Your task to perform on an android device: check android version Image 0: 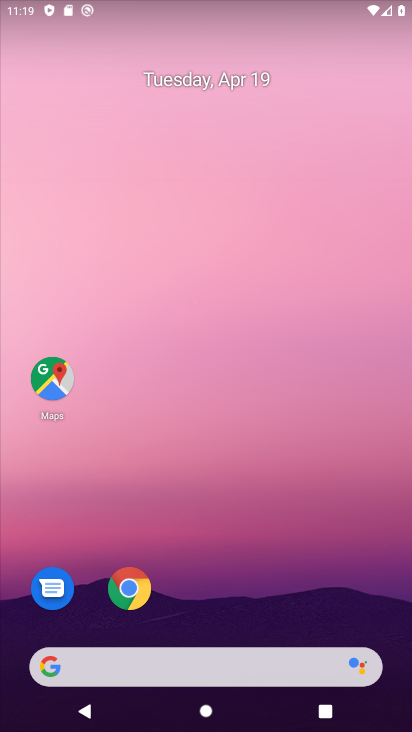
Step 0: drag from (221, 93) to (256, 107)
Your task to perform on an android device: check android version Image 1: 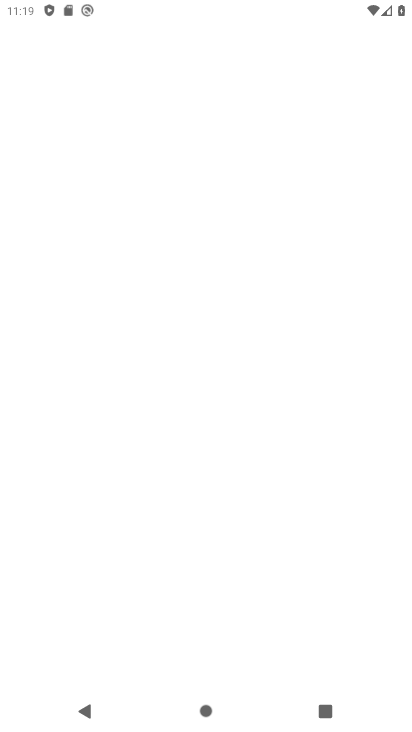
Step 1: press home button
Your task to perform on an android device: check android version Image 2: 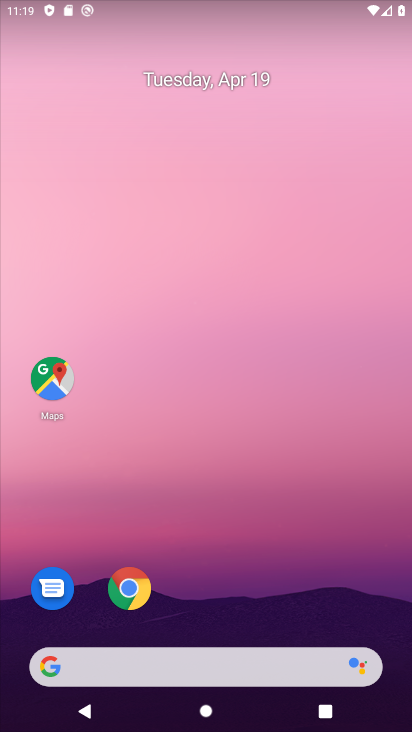
Step 2: drag from (211, 599) to (211, 58)
Your task to perform on an android device: check android version Image 3: 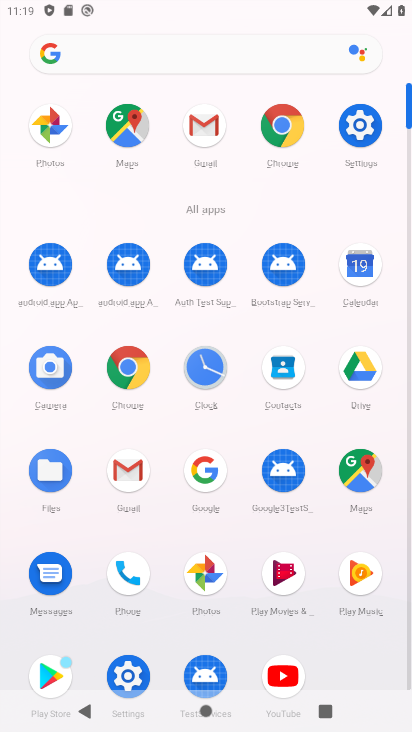
Step 3: click (363, 116)
Your task to perform on an android device: check android version Image 4: 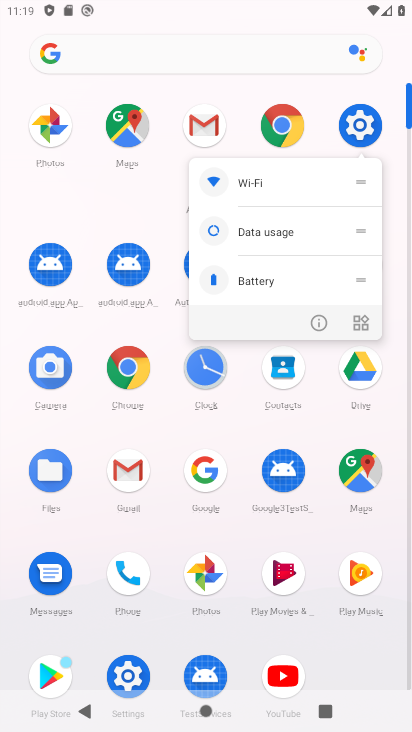
Step 4: click (355, 118)
Your task to perform on an android device: check android version Image 5: 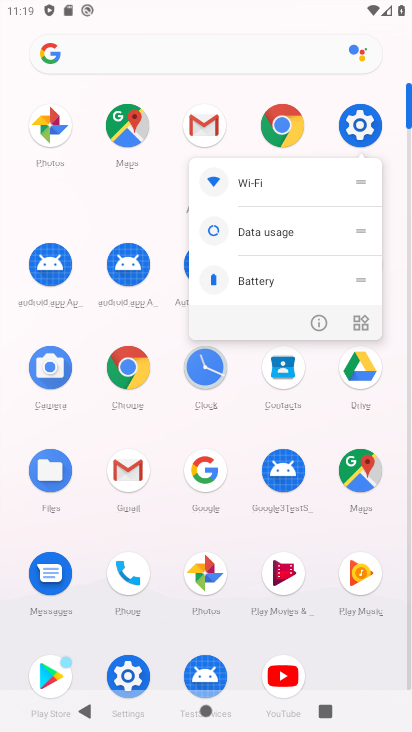
Step 5: click (355, 119)
Your task to perform on an android device: check android version Image 6: 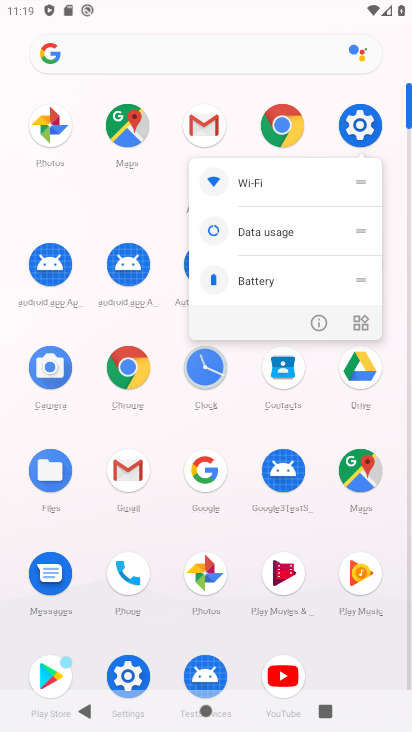
Step 6: click (355, 119)
Your task to perform on an android device: check android version Image 7: 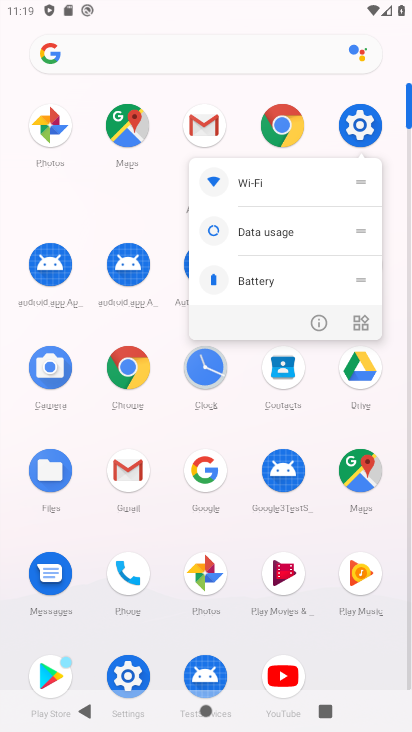
Step 7: click (357, 139)
Your task to perform on an android device: check android version Image 8: 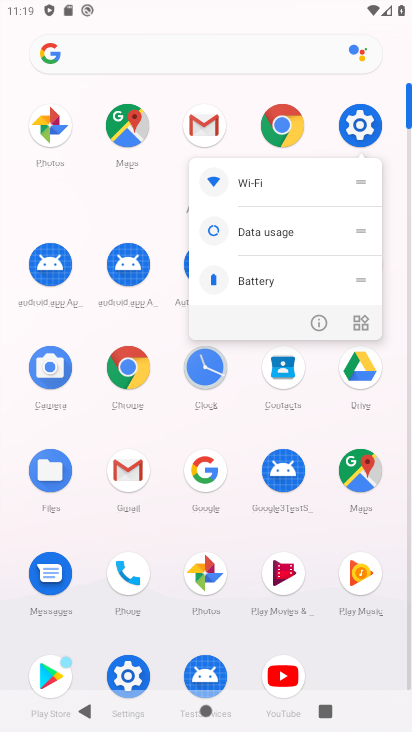
Step 8: click (103, 184)
Your task to perform on an android device: check android version Image 9: 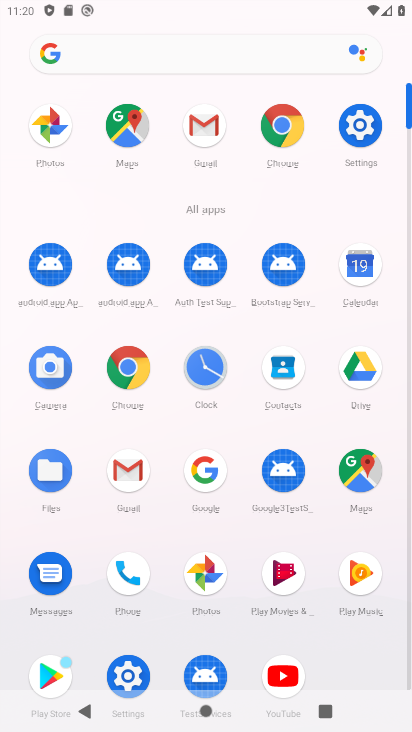
Step 9: click (362, 127)
Your task to perform on an android device: check android version Image 10: 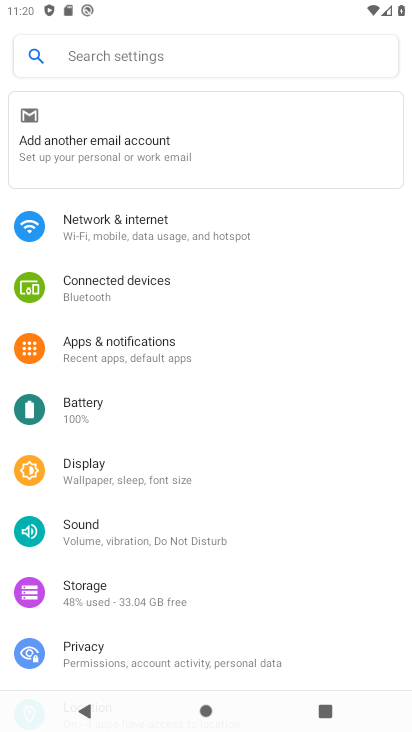
Step 10: drag from (175, 635) to (216, 156)
Your task to perform on an android device: check android version Image 11: 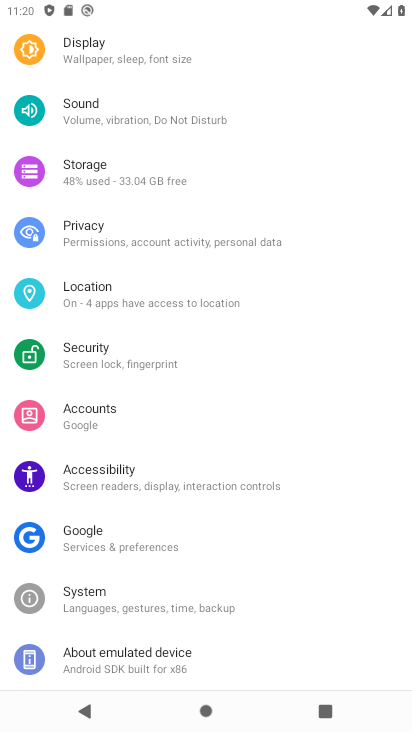
Step 11: click (207, 657)
Your task to perform on an android device: check android version Image 12: 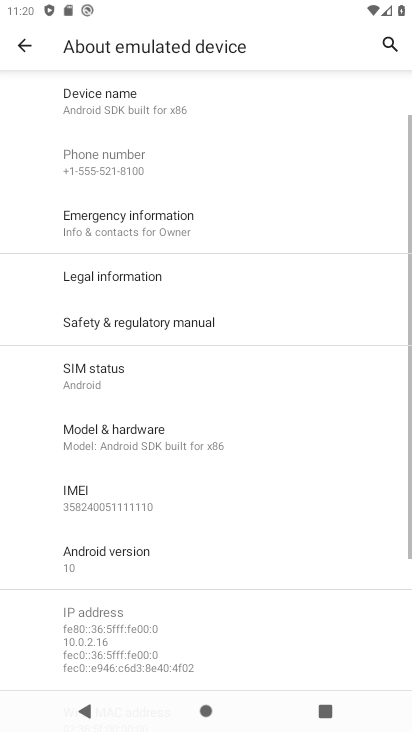
Step 12: click (119, 566)
Your task to perform on an android device: check android version Image 13: 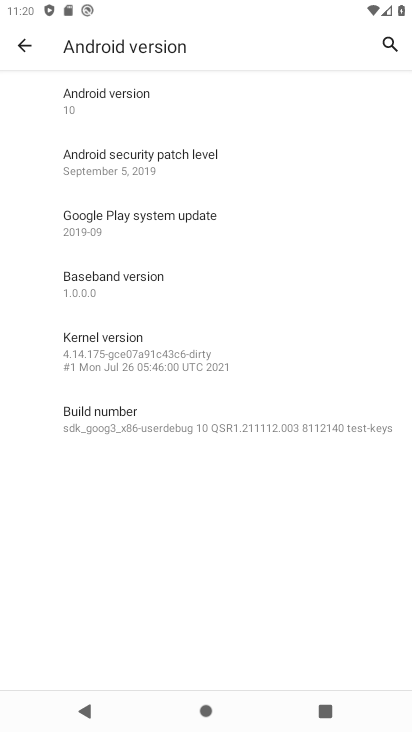
Step 13: click (123, 105)
Your task to perform on an android device: check android version Image 14: 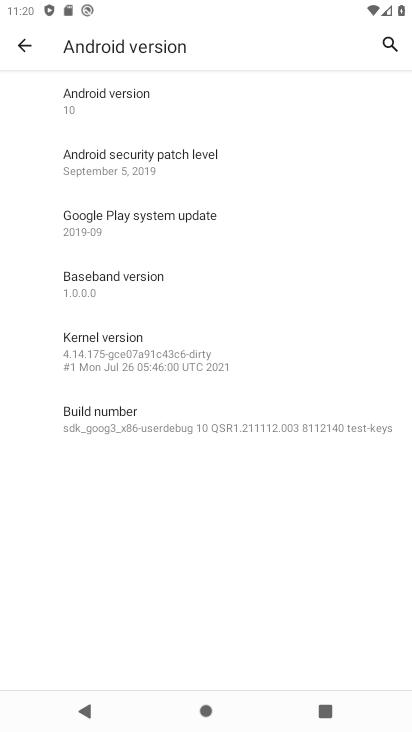
Step 14: task complete